Your task to perform on an android device: uninstall "Reddit" Image 0: 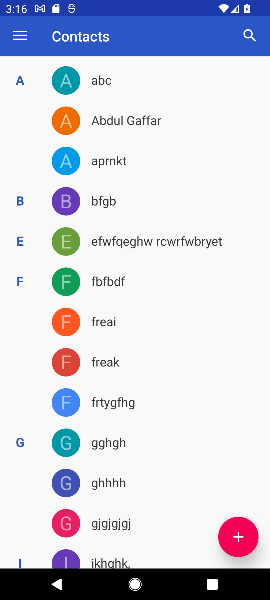
Step 0: press home button
Your task to perform on an android device: uninstall "Reddit" Image 1: 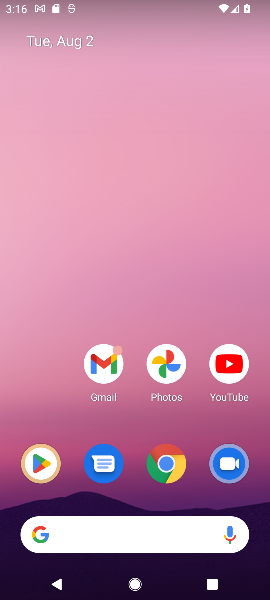
Step 1: click (39, 458)
Your task to perform on an android device: uninstall "Reddit" Image 2: 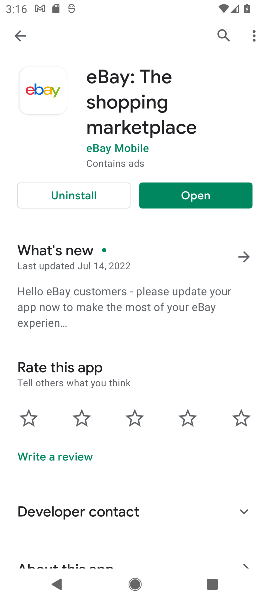
Step 2: click (221, 31)
Your task to perform on an android device: uninstall "Reddit" Image 3: 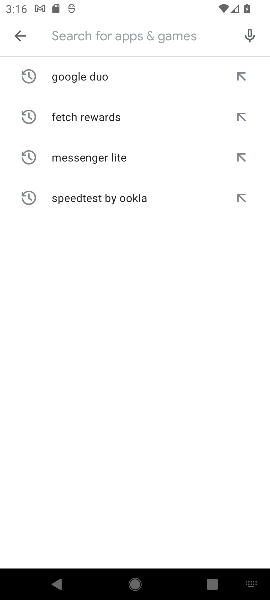
Step 3: type "Reddit"
Your task to perform on an android device: uninstall "Reddit" Image 4: 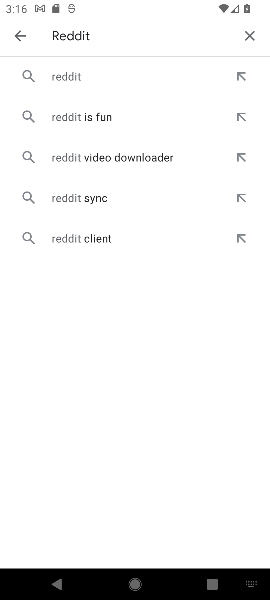
Step 4: click (50, 73)
Your task to perform on an android device: uninstall "Reddit" Image 5: 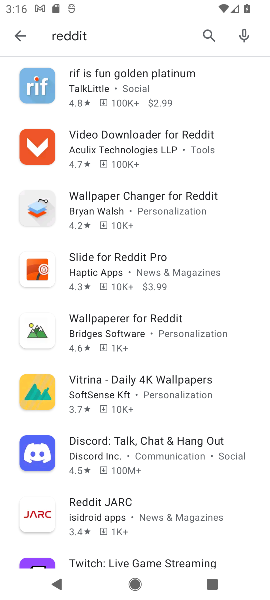
Step 5: task complete